Your task to perform on an android device: Turn off the flashlight Image 0: 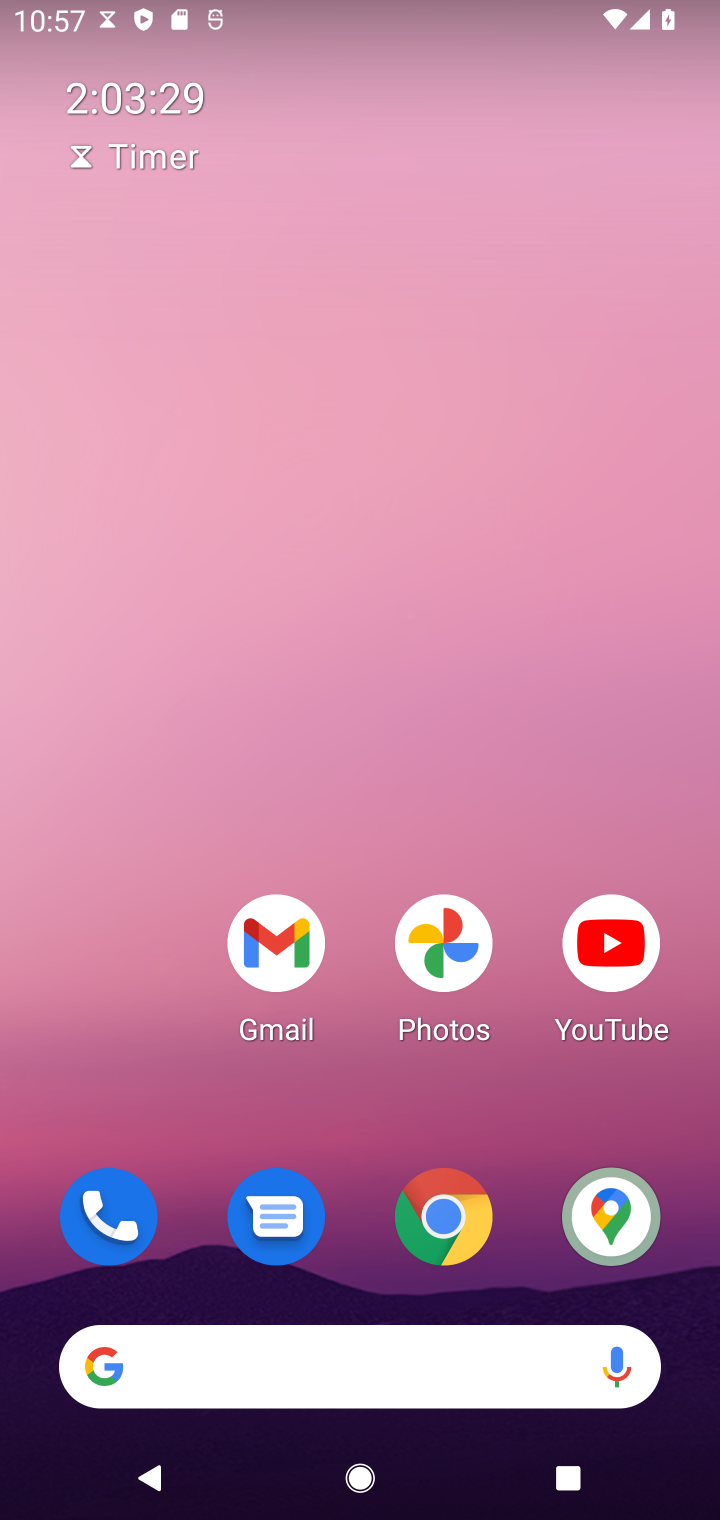
Step 0: drag from (150, 900) to (249, 86)
Your task to perform on an android device: Turn off the flashlight Image 1: 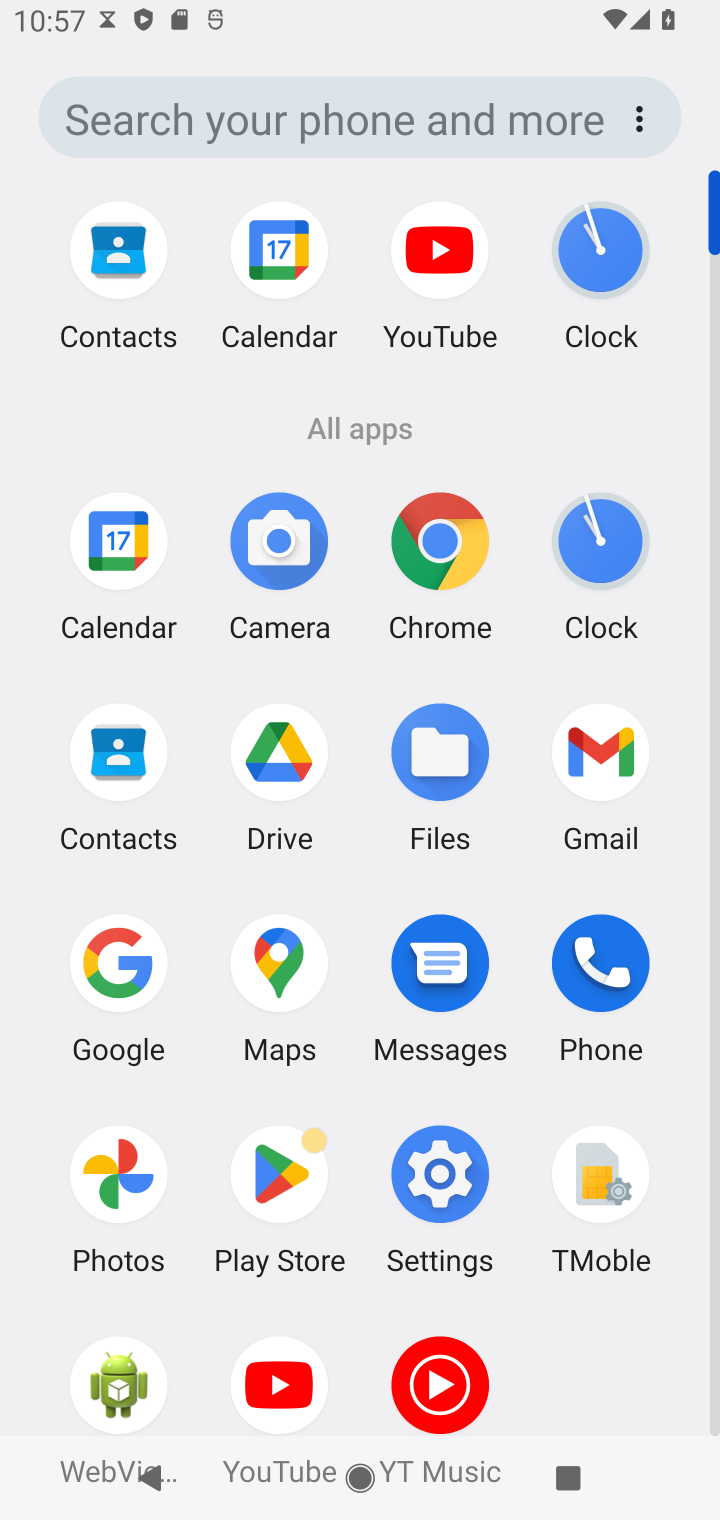
Step 1: click (452, 1207)
Your task to perform on an android device: Turn off the flashlight Image 2: 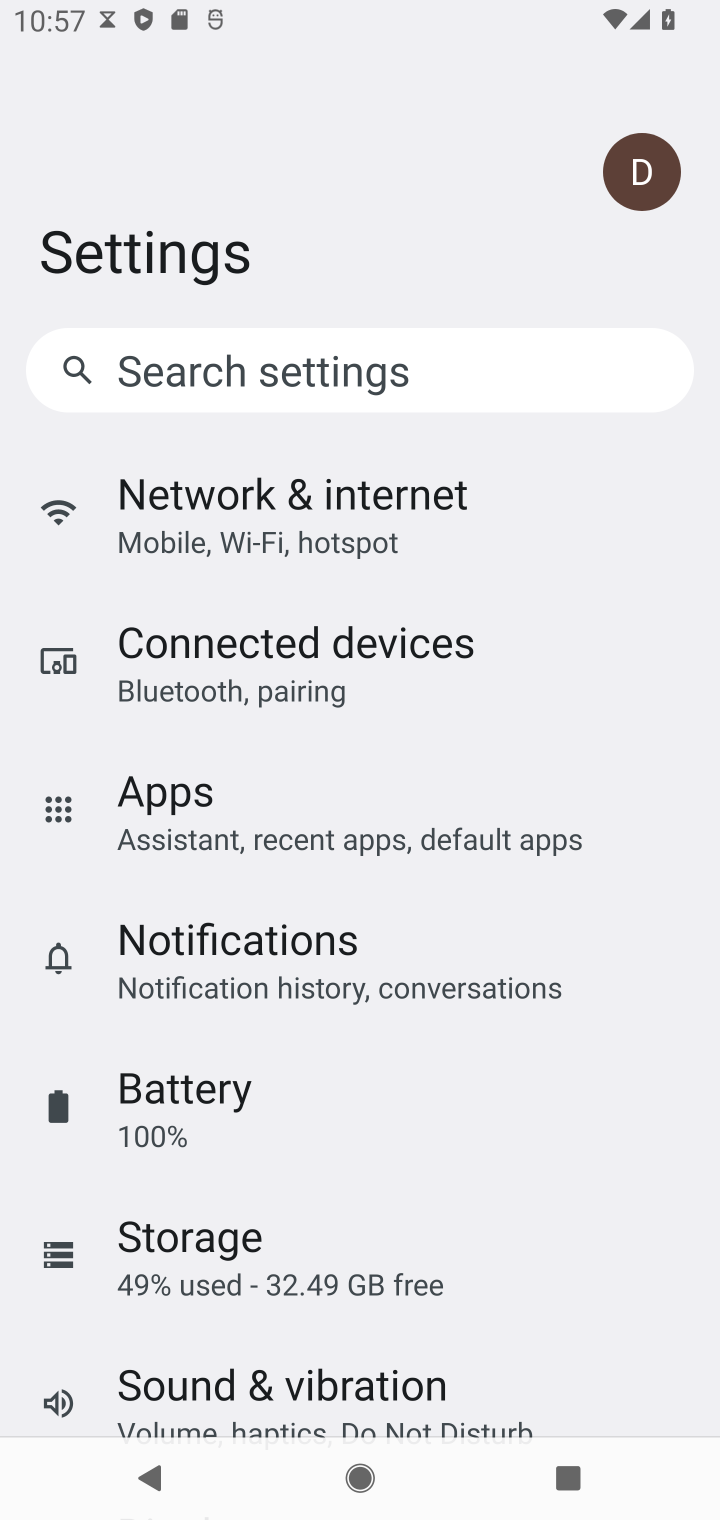
Step 2: click (267, 360)
Your task to perform on an android device: Turn off the flashlight Image 3: 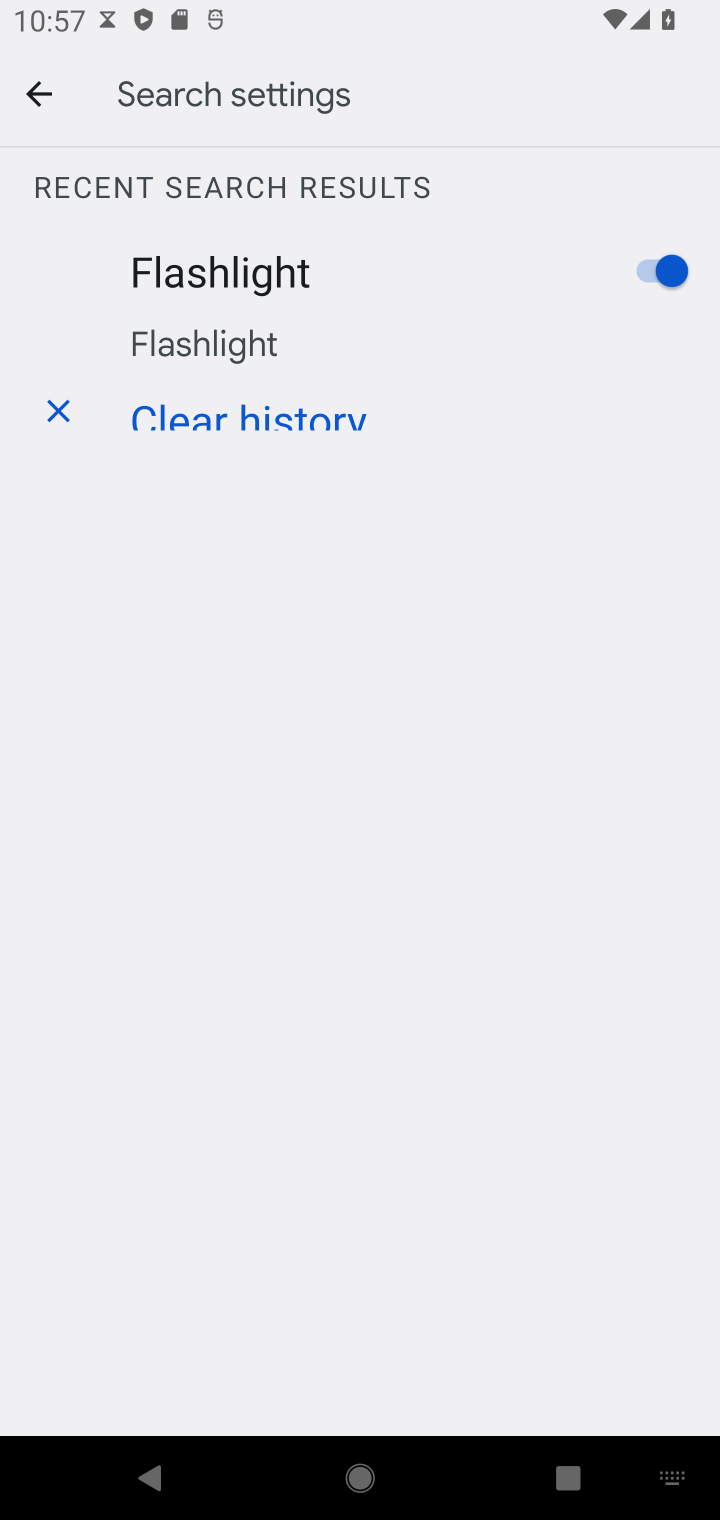
Step 3: click (657, 272)
Your task to perform on an android device: Turn off the flashlight Image 4: 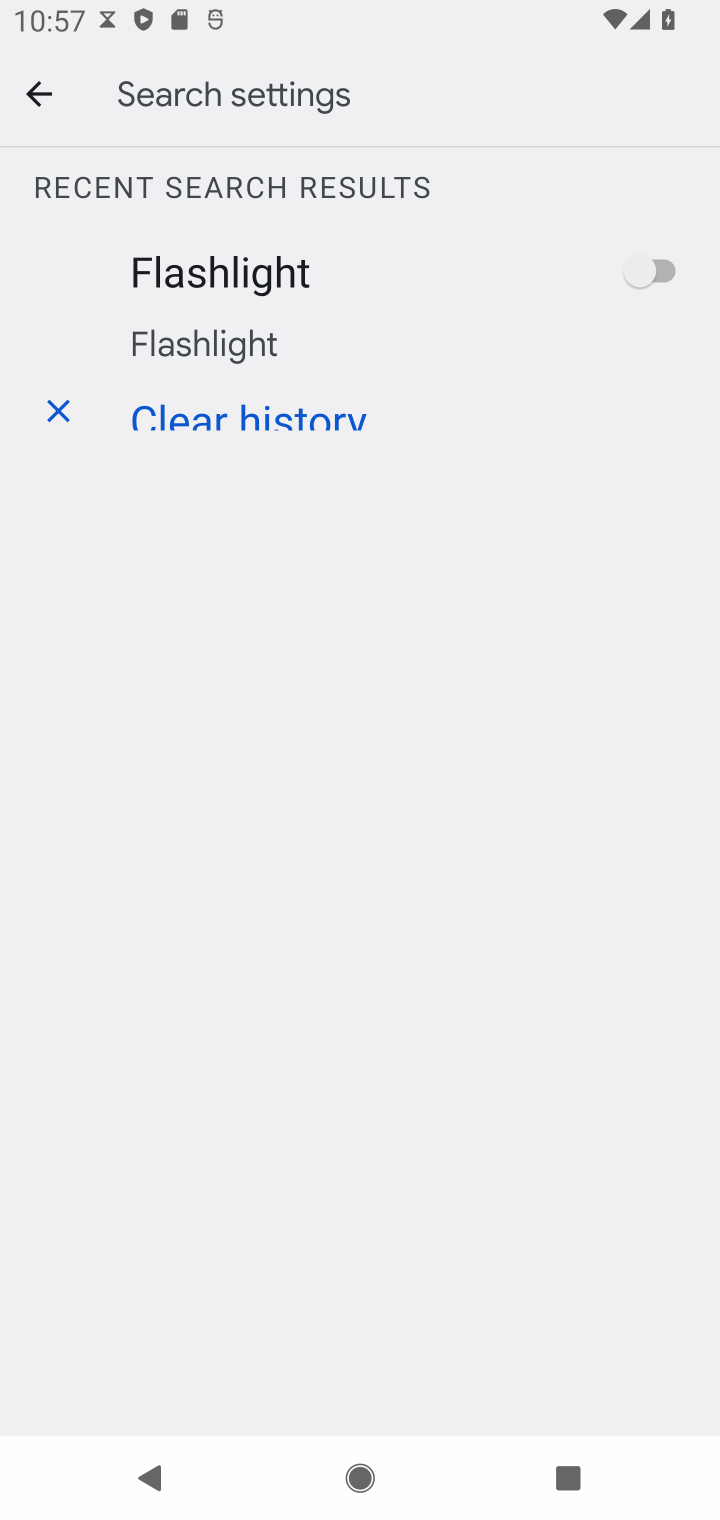
Step 4: task complete